Your task to perform on an android device: change notifications settings Image 0: 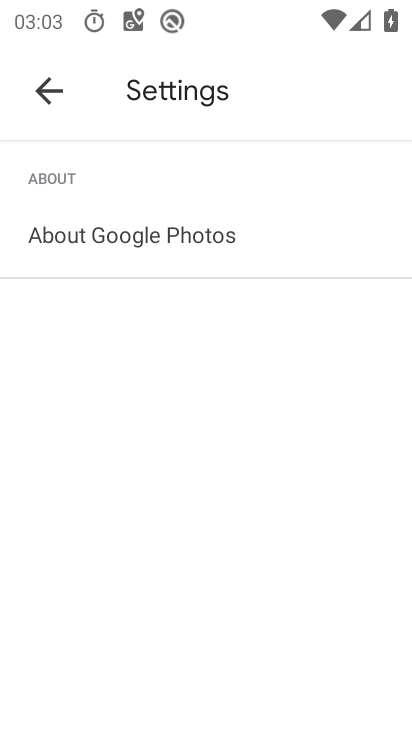
Step 0: press home button
Your task to perform on an android device: change notifications settings Image 1: 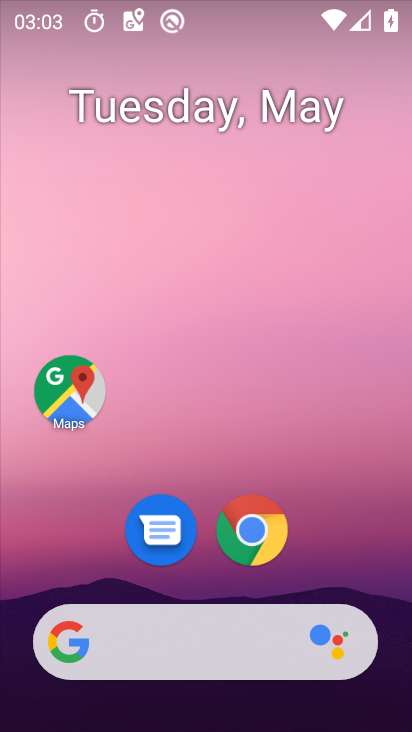
Step 1: drag from (122, 523) to (367, 196)
Your task to perform on an android device: change notifications settings Image 2: 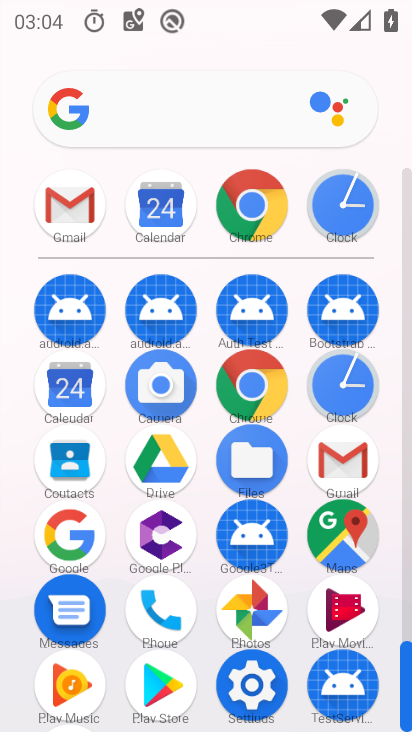
Step 2: click (244, 665)
Your task to perform on an android device: change notifications settings Image 3: 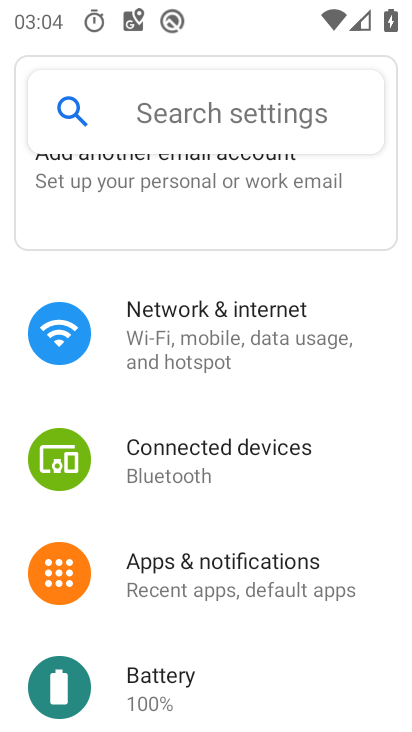
Step 3: click (199, 574)
Your task to perform on an android device: change notifications settings Image 4: 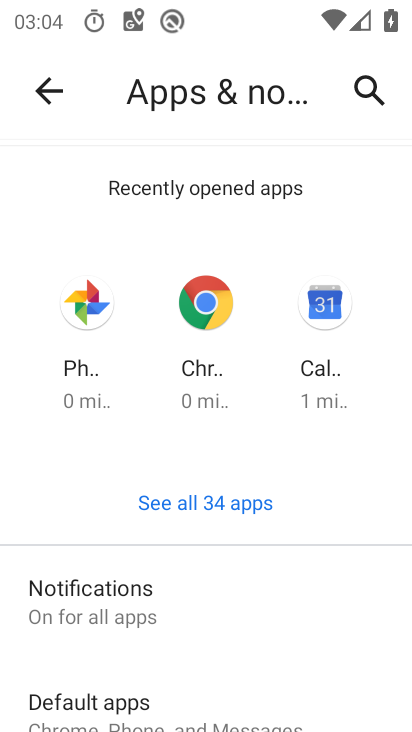
Step 4: click (62, 603)
Your task to perform on an android device: change notifications settings Image 5: 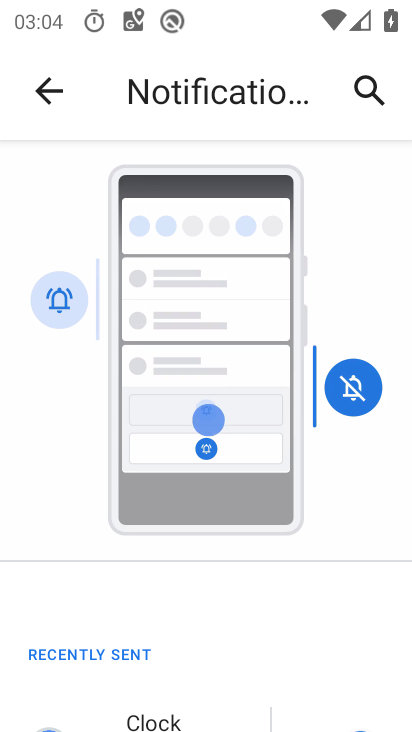
Step 5: task complete